Your task to perform on an android device: turn on location history Image 0: 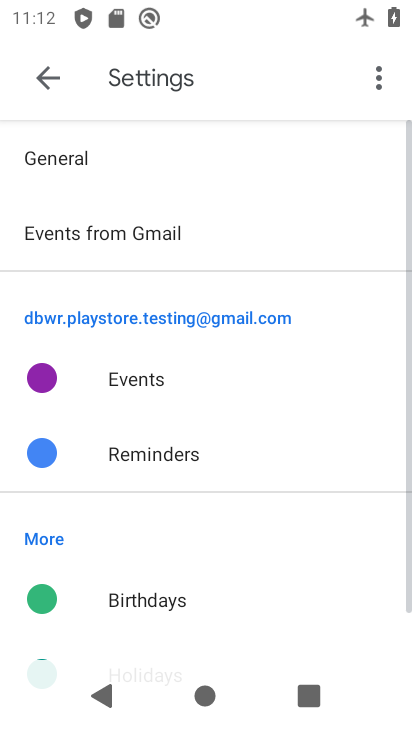
Step 0: press home button
Your task to perform on an android device: turn on location history Image 1: 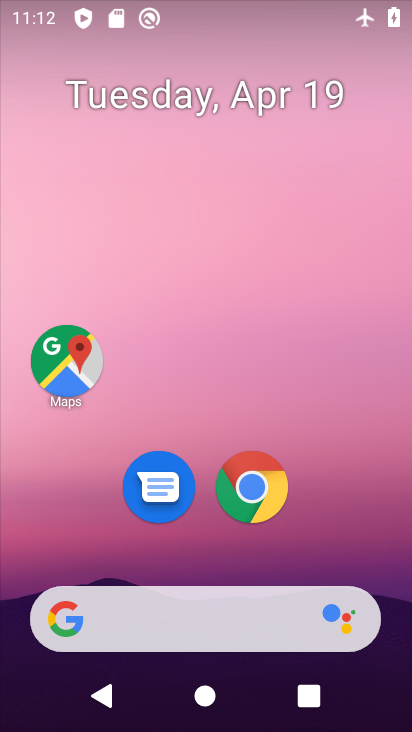
Step 1: drag from (344, 544) to (329, 12)
Your task to perform on an android device: turn on location history Image 2: 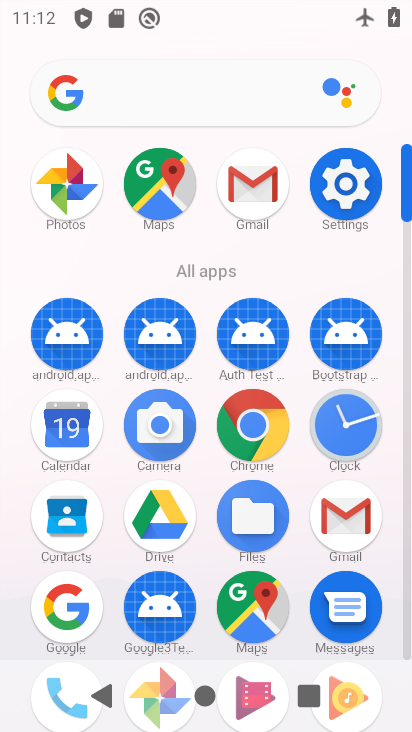
Step 2: click (355, 189)
Your task to perform on an android device: turn on location history Image 3: 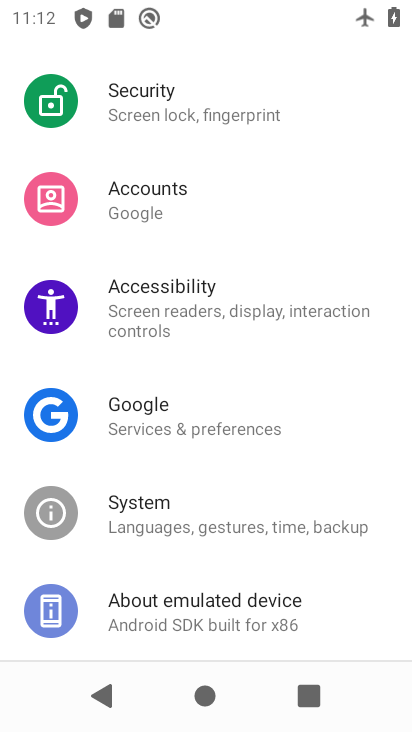
Step 3: drag from (191, 179) to (199, 486)
Your task to perform on an android device: turn on location history Image 4: 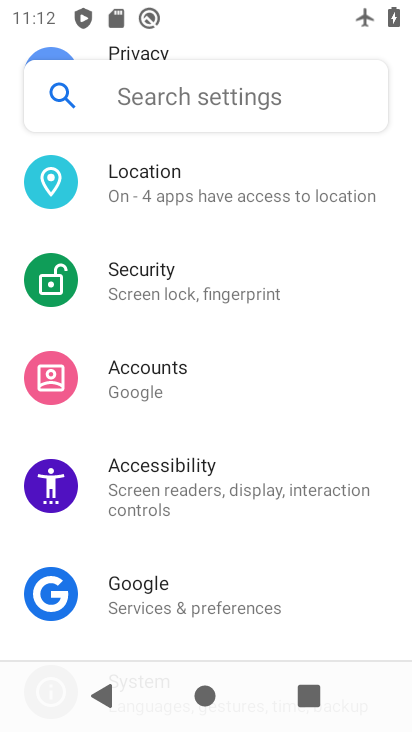
Step 4: click (173, 190)
Your task to perform on an android device: turn on location history Image 5: 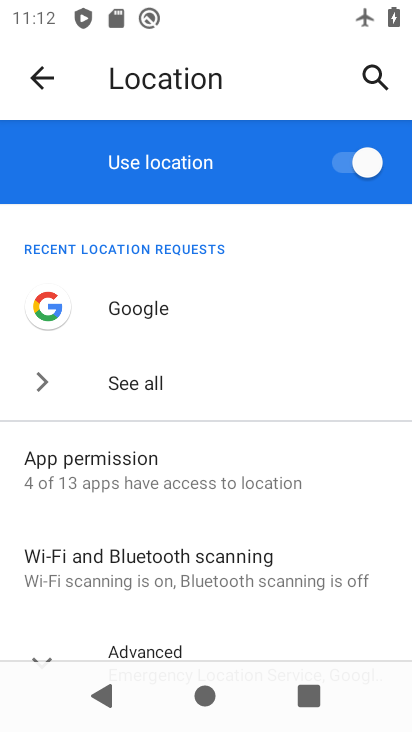
Step 5: drag from (82, 583) to (133, 220)
Your task to perform on an android device: turn on location history Image 6: 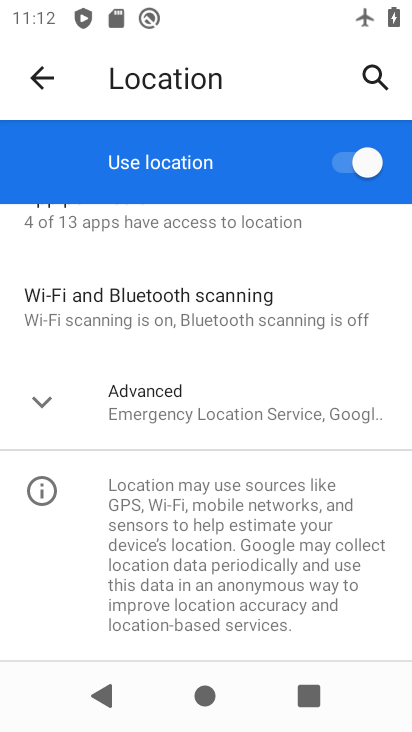
Step 6: click (111, 391)
Your task to perform on an android device: turn on location history Image 7: 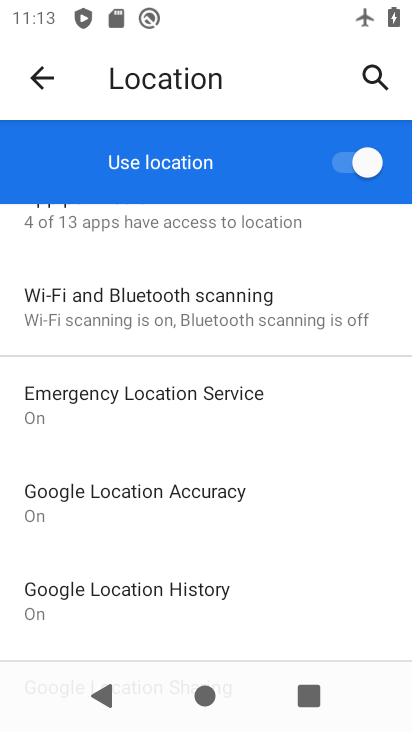
Step 7: click (173, 590)
Your task to perform on an android device: turn on location history Image 8: 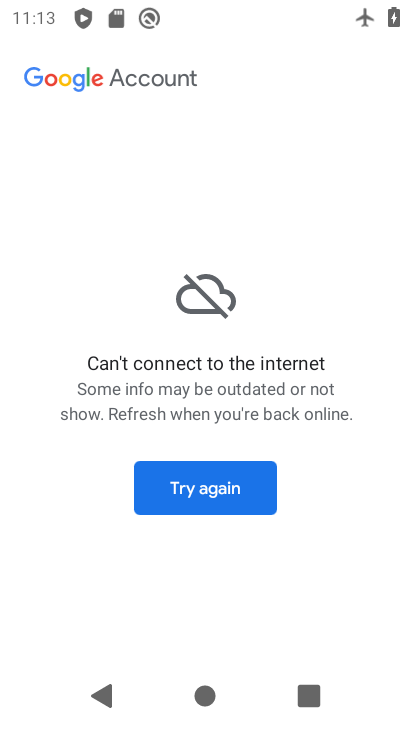
Step 8: task complete